Your task to perform on an android device: empty trash in the gmail app Image 0: 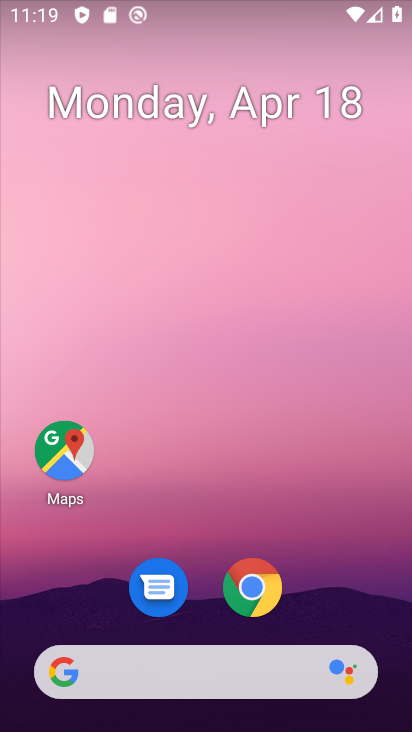
Step 0: drag from (301, 625) to (326, 43)
Your task to perform on an android device: empty trash in the gmail app Image 1: 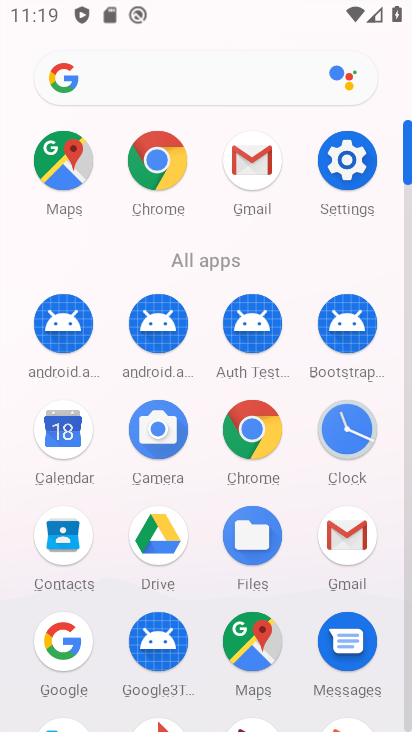
Step 1: click (353, 532)
Your task to perform on an android device: empty trash in the gmail app Image 2: 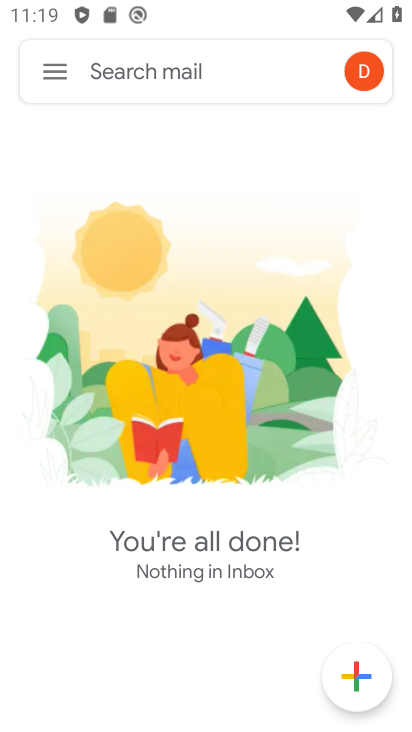
Step 2: click (50, 77)
Your task to perform on an android device: empty trash in the gmail app Image 3: 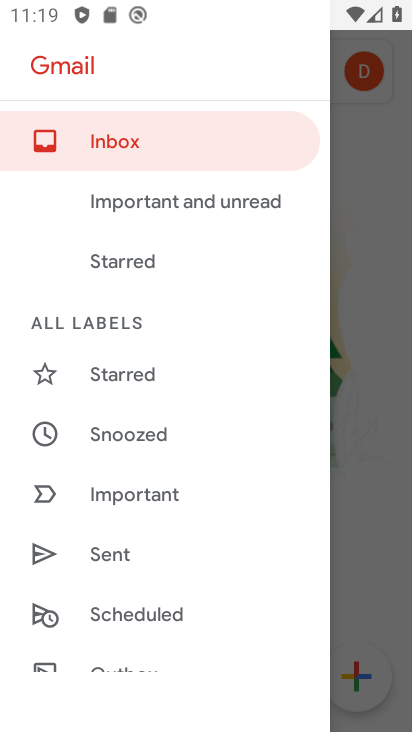
Step 3: drag from (256, 644) to (293, 192)
Your task to perform on an android device: empty trash in the gmail app Image 4: 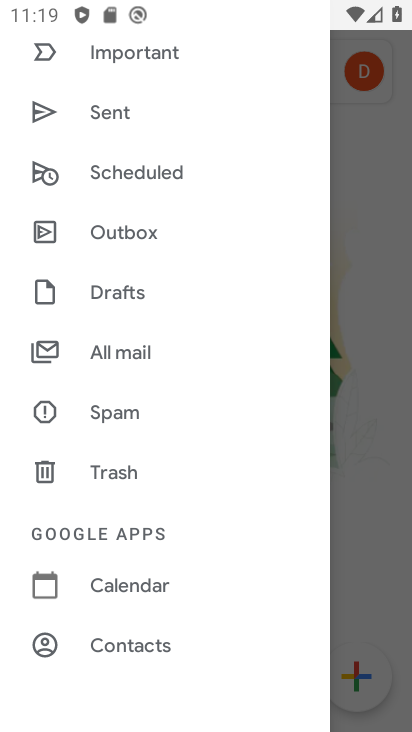
Step 4: click (110, 479)
Your task to perform on an android device: empty trash in the gmail app Image 5: 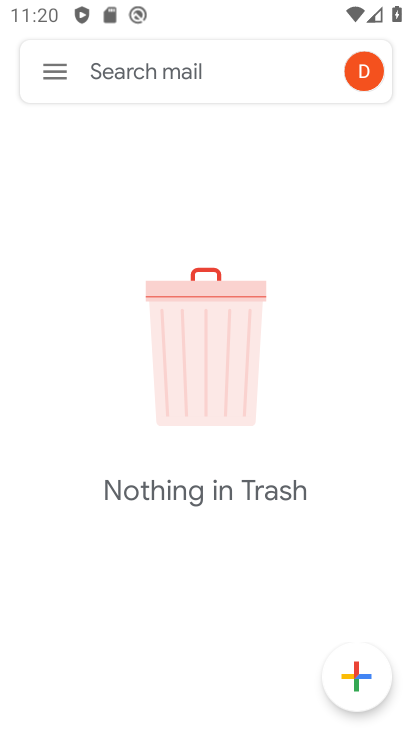
Step 5: task complete